Your task to perform on an android device: star an email in the gmail app Image 0: 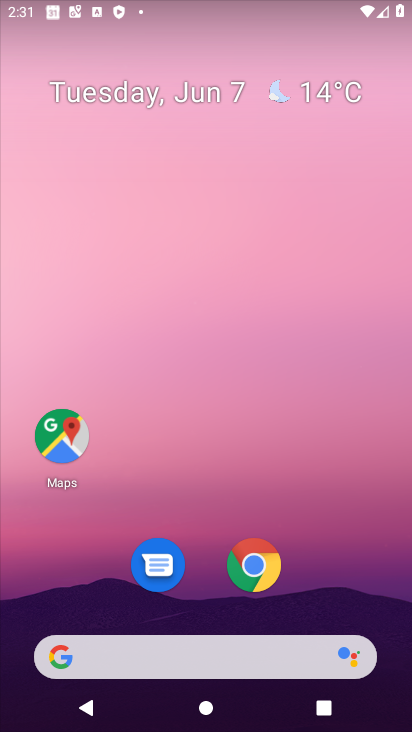
Step 0: drag from (325, 630) to (256, 710)
Your task to perform on an android device: star an email in the gmail app Image 1: 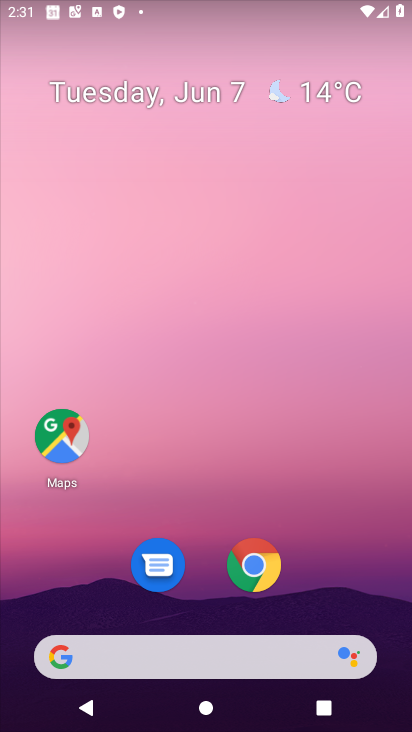
Step 1: click (355, 549)
Your task to perform on an android device: star an email in the gmail app Image 2: 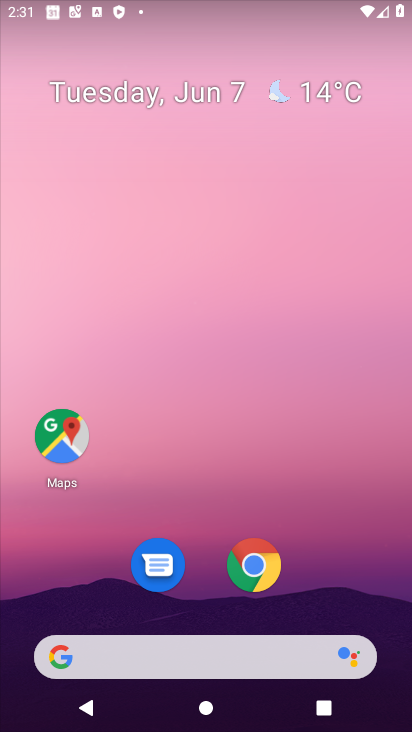
Step 2: drag from (336, 648) to (355, 59)
Your task to perform on an android device: star an email in the gmail app Image 3: 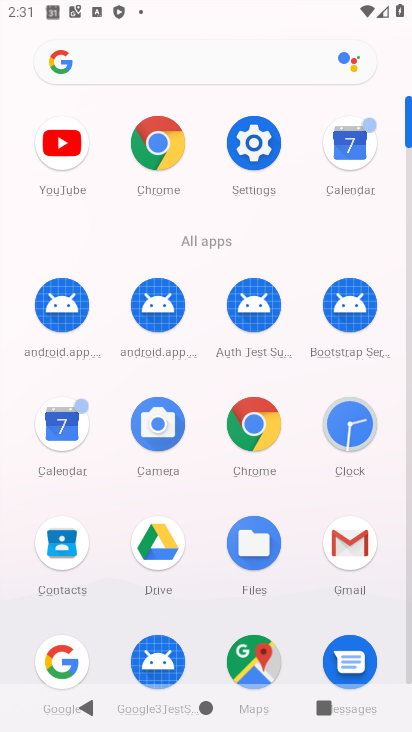
Step 3: click (356, 545)
Your task to perform on an android device: star an email in the gmail app Image 4: 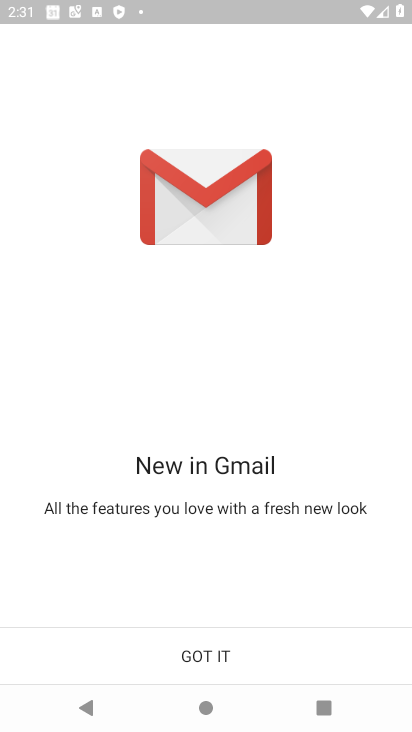
Step 4: click (229, 660)
Your task to perform on an android device: star an email in the gmail app Image 5: 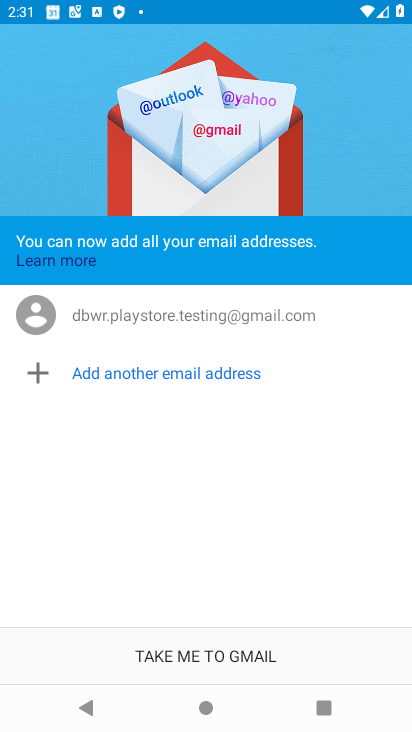
Step 5: click (229, 660)
Your task to perform on an android device: star an email in the gmail app Image 6: 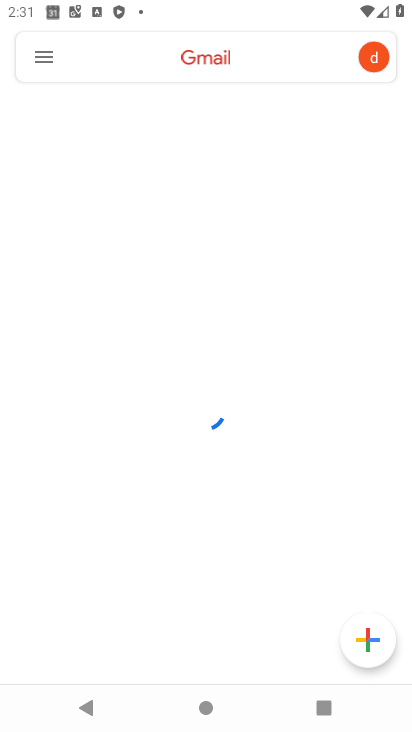
Step 6: click (26, 59)
Your task to perform on an android device: star an email in the gmail app Image 7: 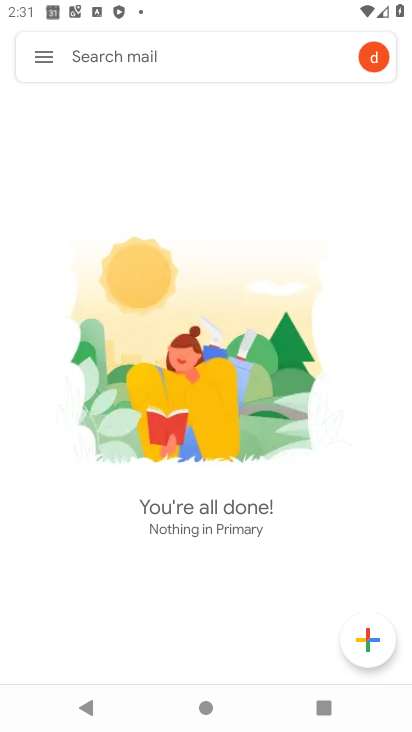
Step 7: click (45, 60)
Your task to perform on an android device: star an email in the gmail app Image 8: 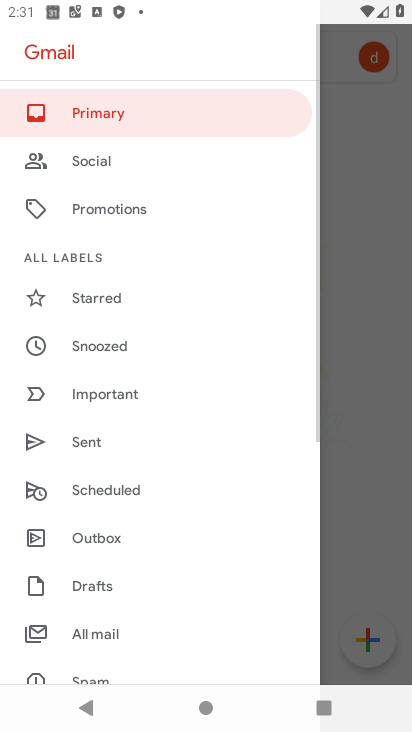
Step 8: click (140, 294)
Your task to perform on an android device: star an email in the gmail app Image 9: 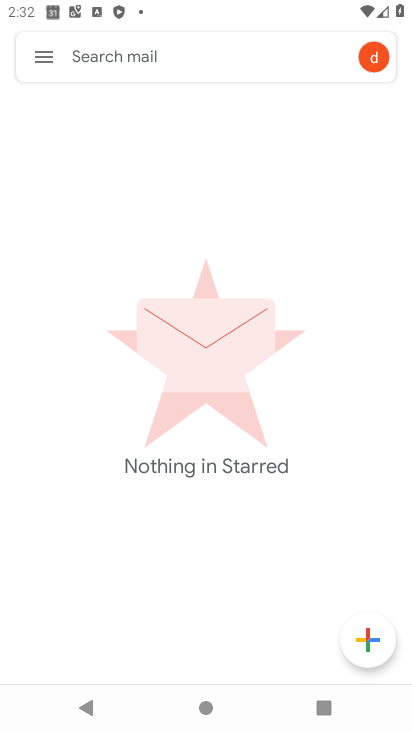
Step 9: task complete